Your task to perform on an android device: install app "Spotify: Music and Podcasts" Image 0: 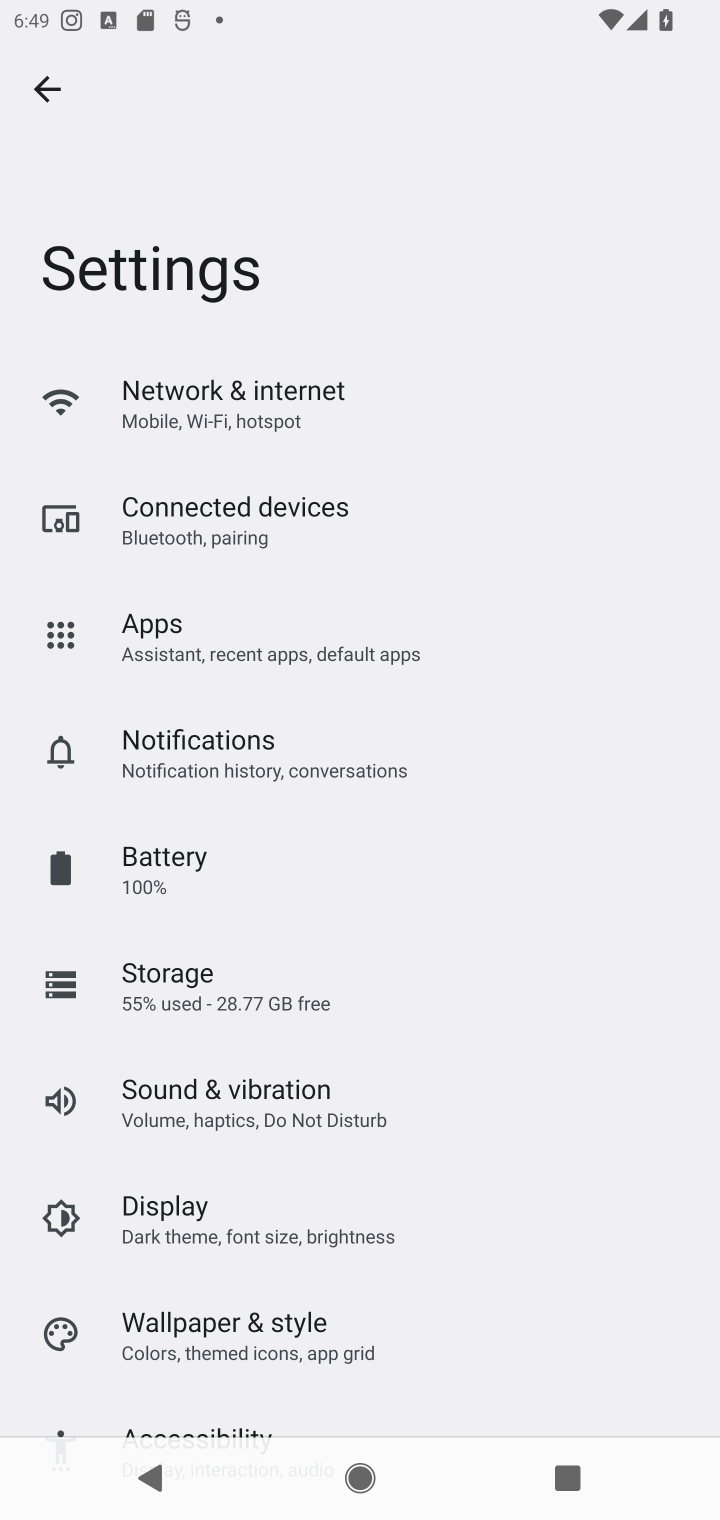
Step 0: press home button
Your task to perform on an android device: install app "Spotify: Music and Podcasts" Image 1: 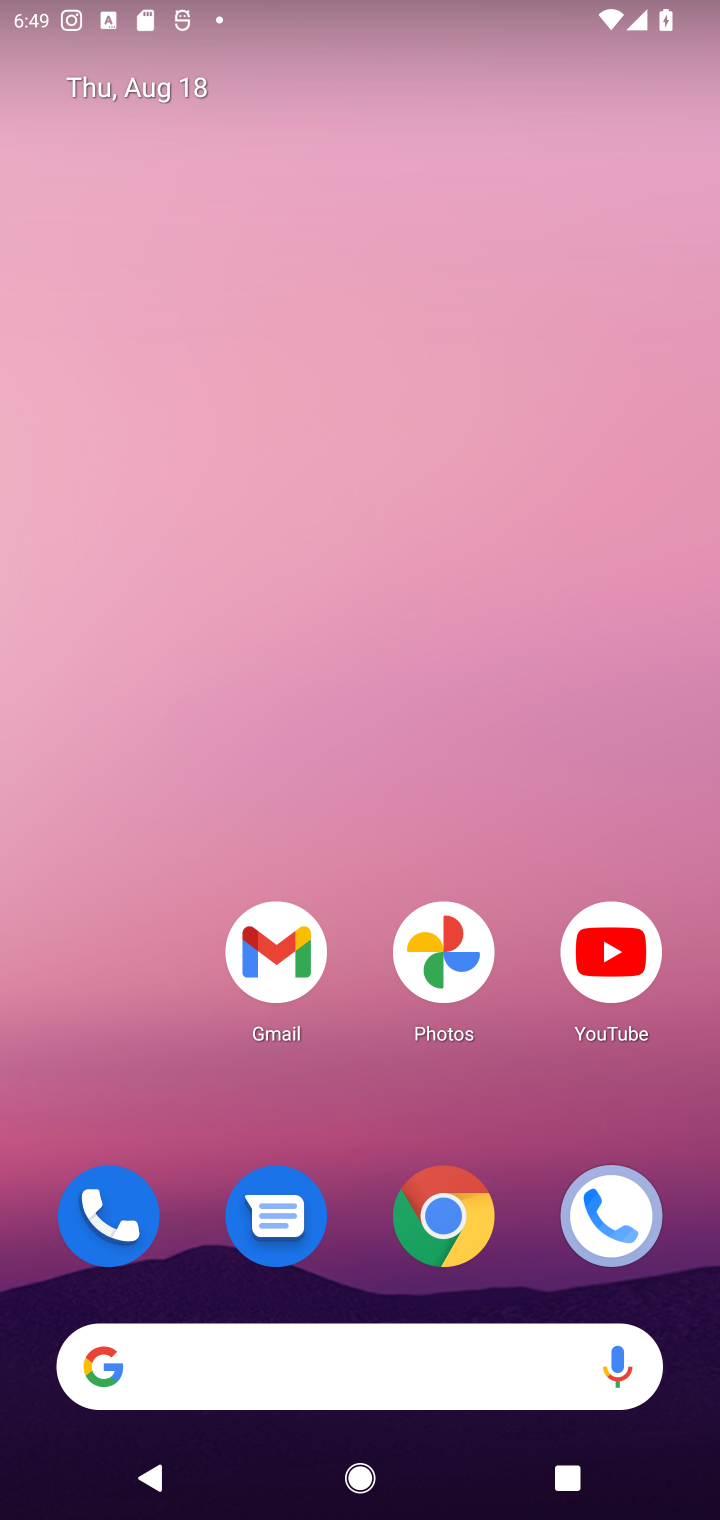
Step 1: drag from (452, 1080) to (446, 224)
Your task to perform on an android device: install app "Spotify: Music and Podcasts" Image 2: 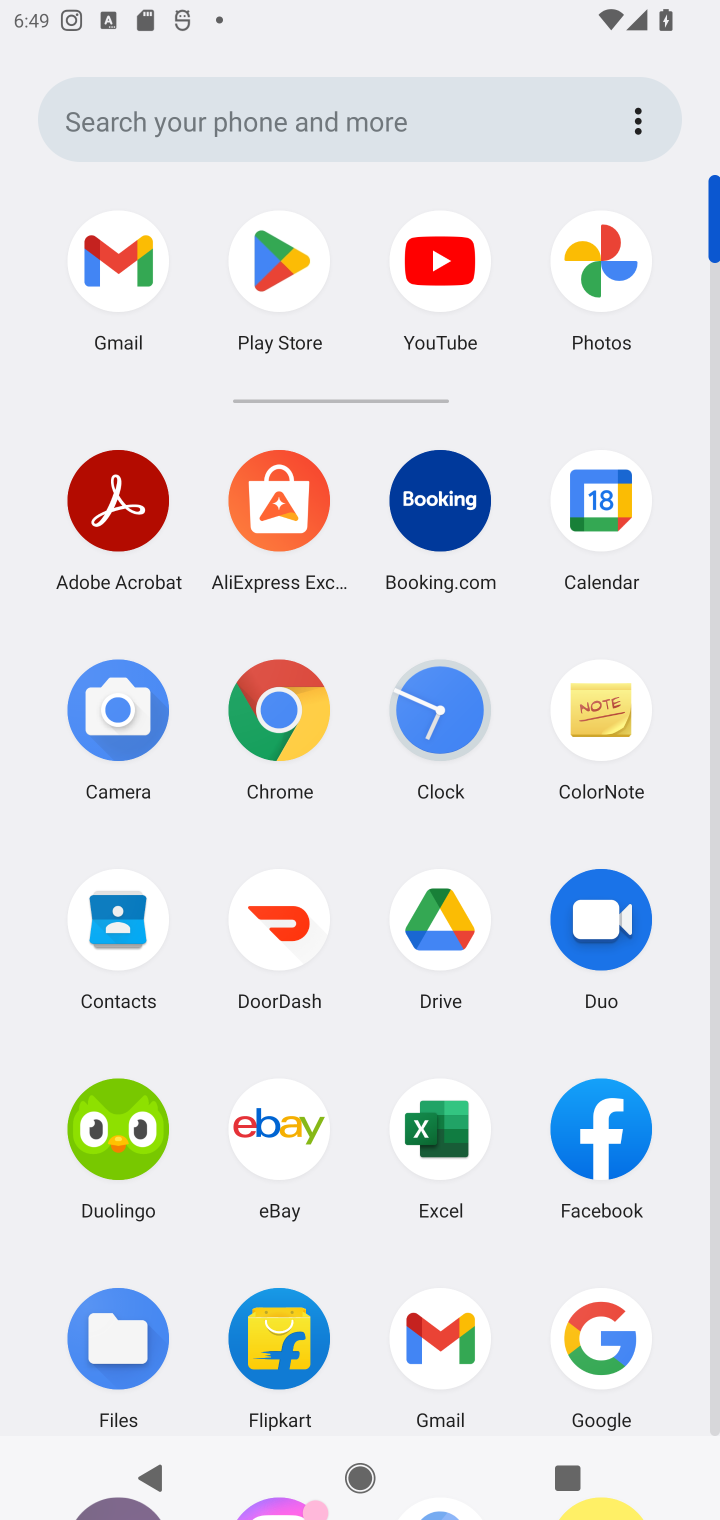
Step 2: click (264, 275)
Your task to perform on an android device: install app "Spotify: Music and Podcasts" Image 3: 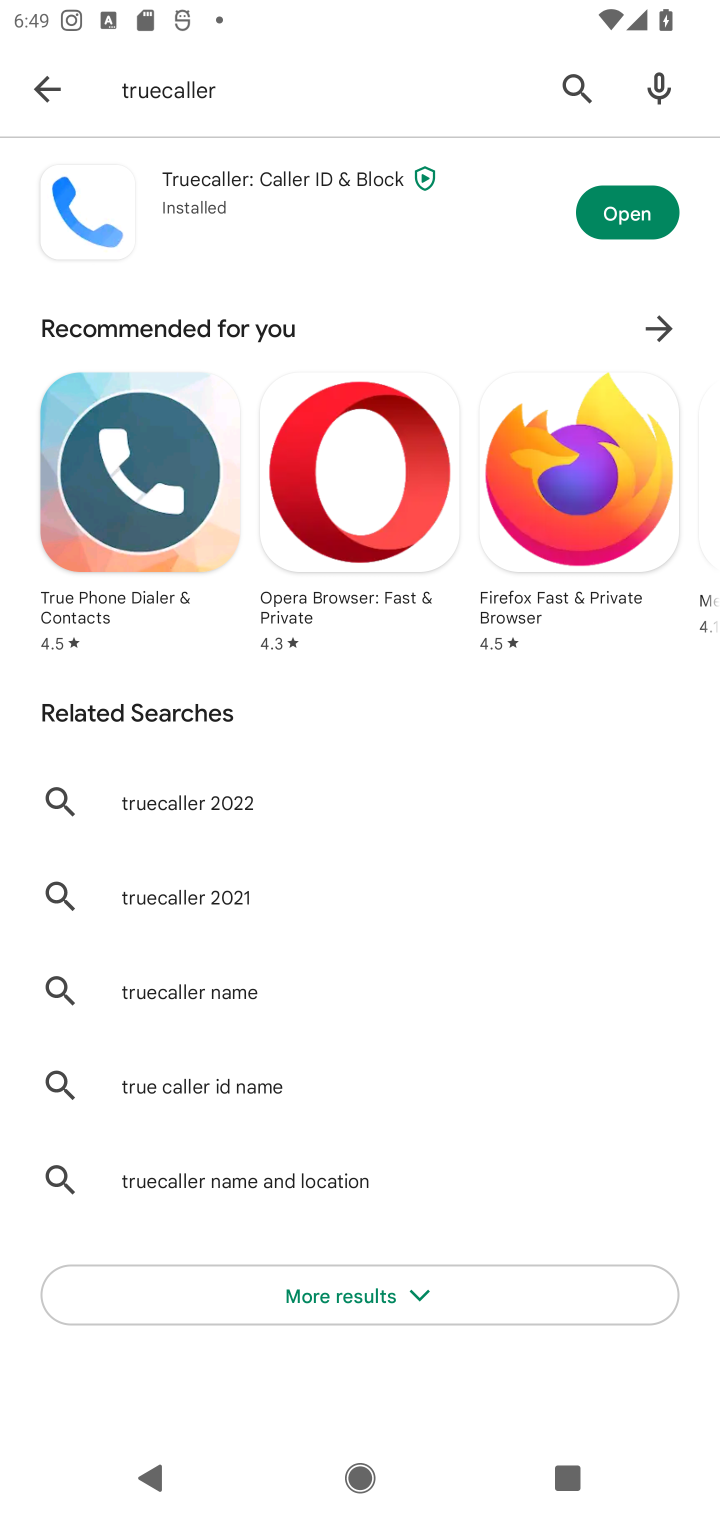
Step 3: click (559, 80)
Your task to perform on an android device: install app "Spotify: Music and Podcasts" Image 4: 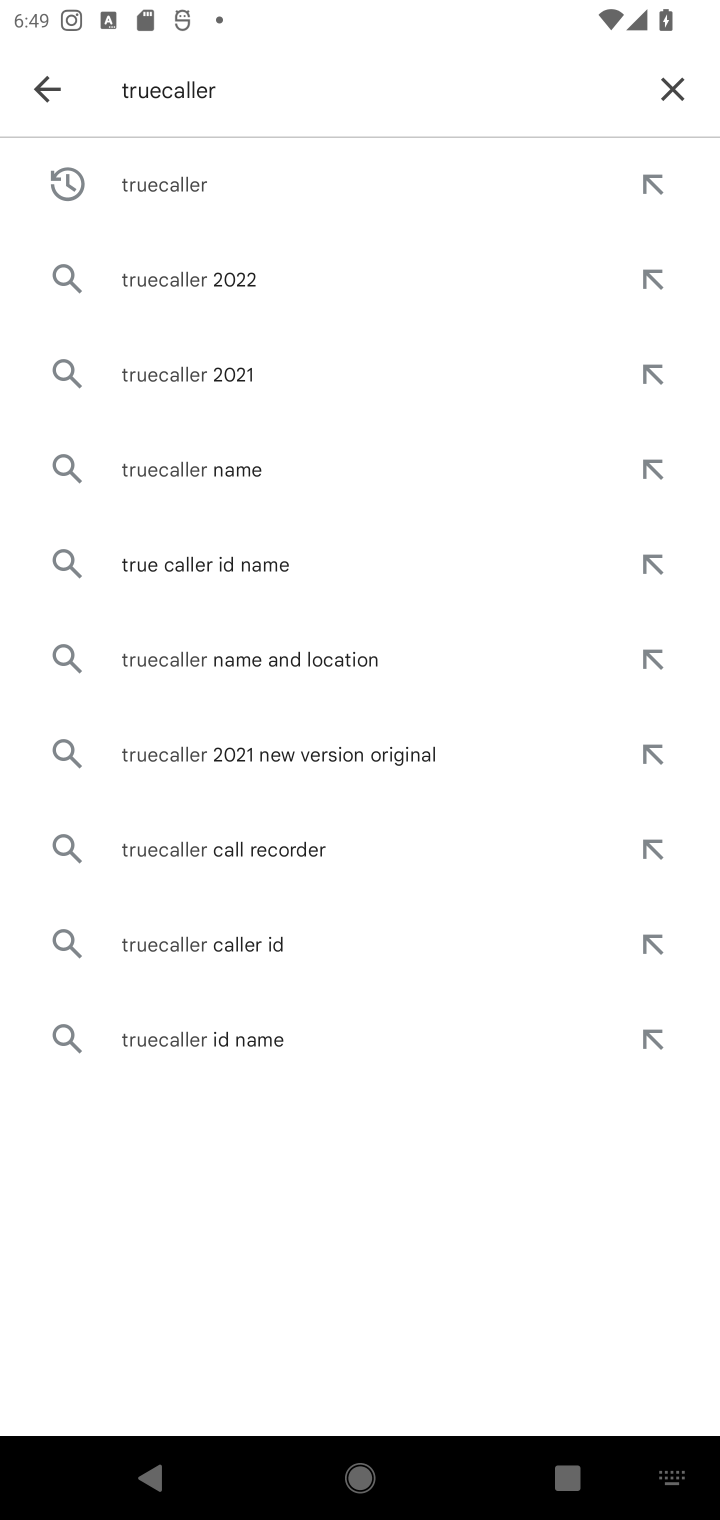
Step 4: click (668, 90)
Your task to perform on an android device: install app "Spotify: Music and Podcasts" Image 5: 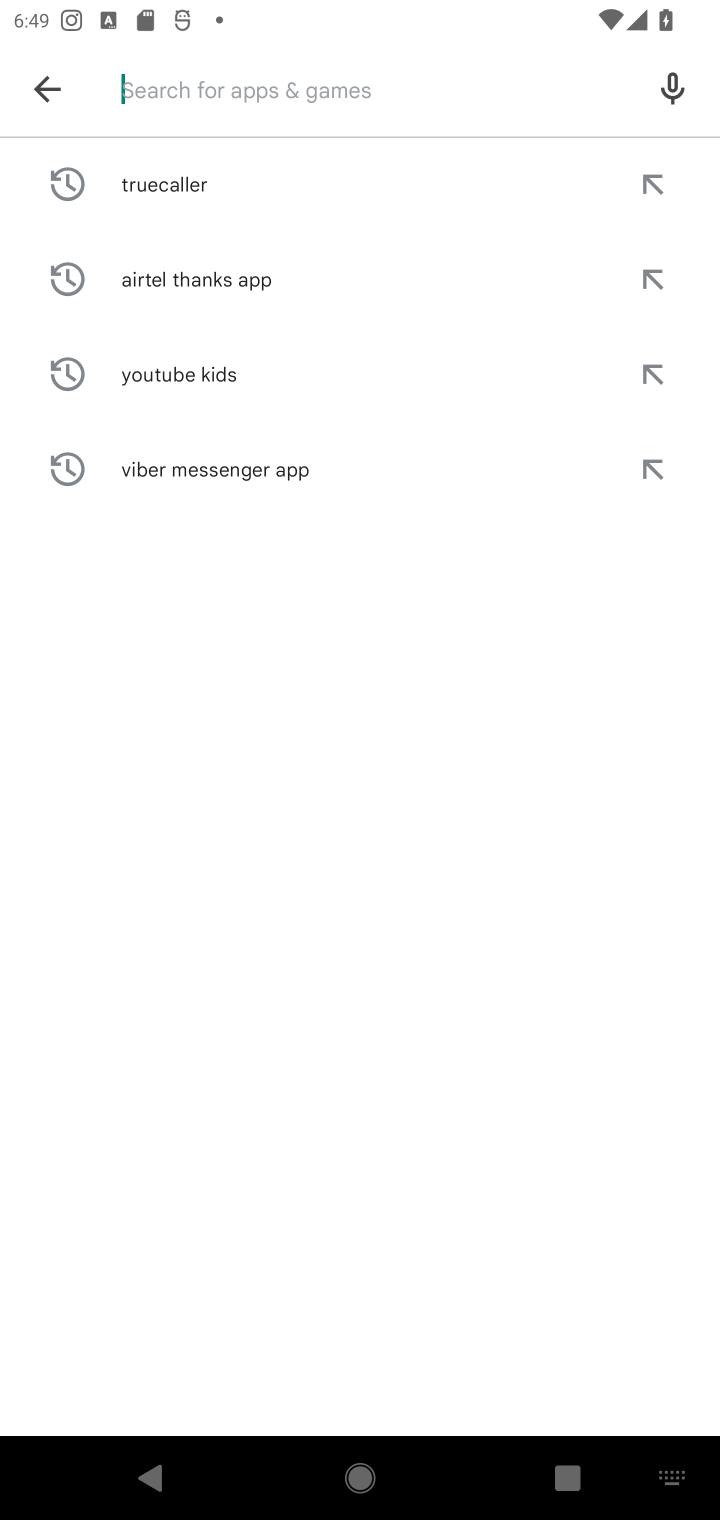
Step 5: type "Spotify: Music and Podcasts"
Your task to perform on an android device: install app "Spotify: Music and Podcasts" Image 6: 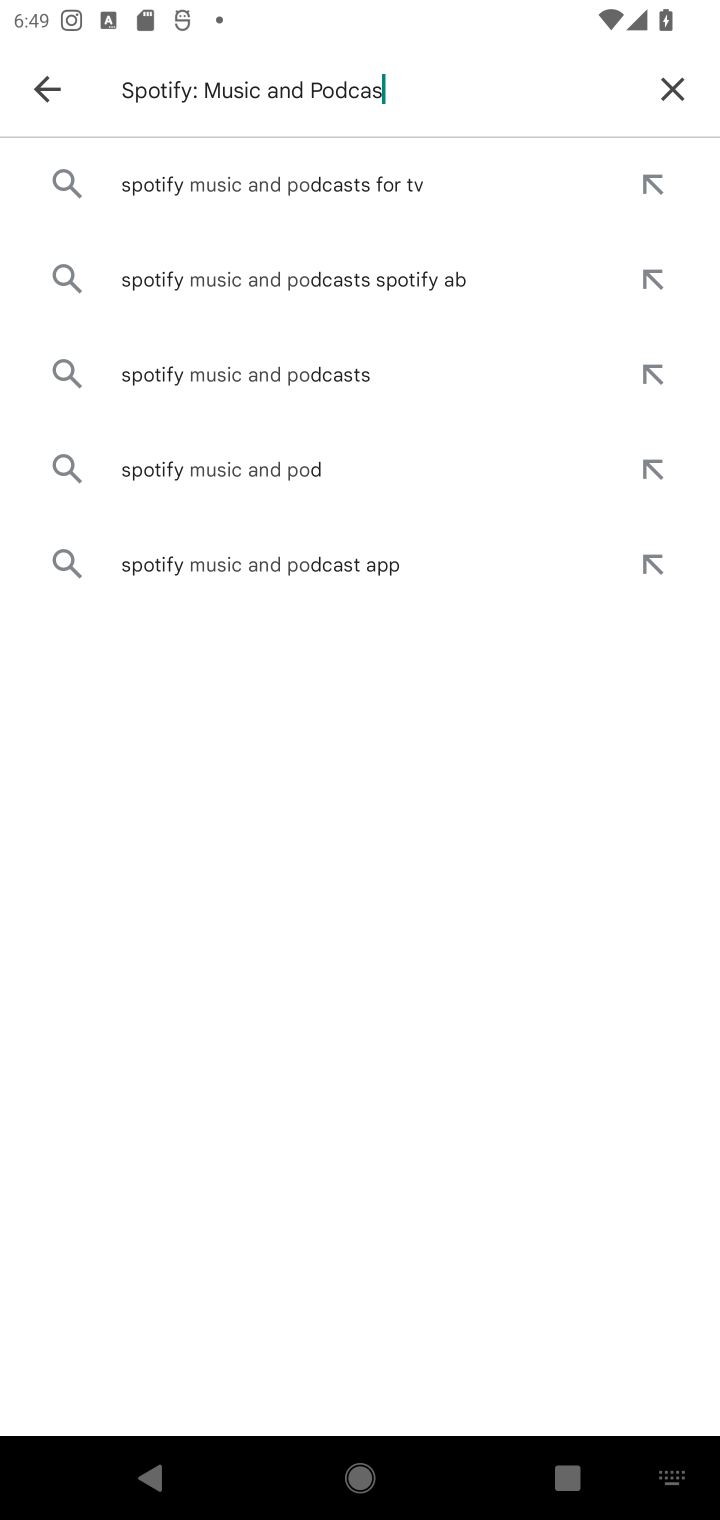
Step 6: type ""
Your task to perform on an android device: install app "Spotify: Music and Podcasts" Image 7: 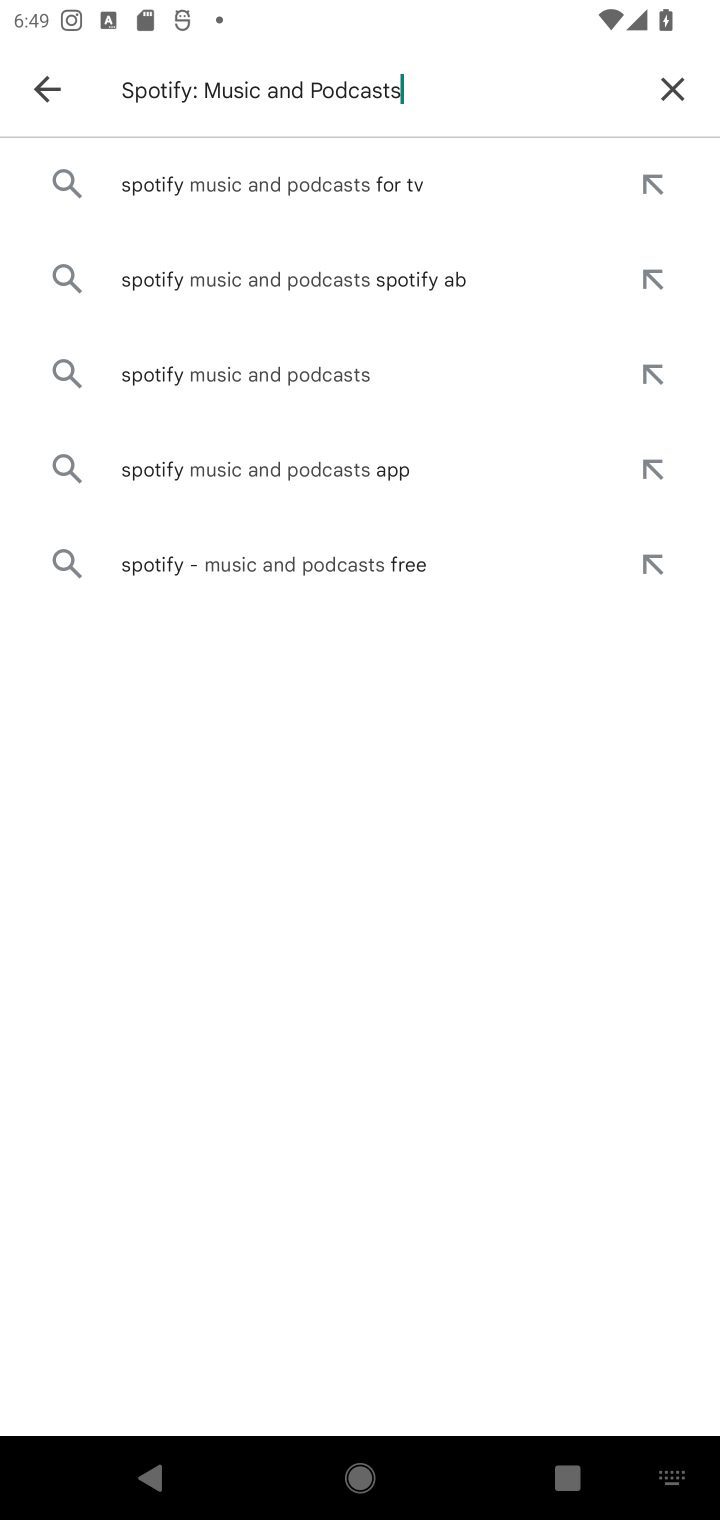
Step 7: click (306, 189)
Your task to perform on an android device: install app "Spotify: Music and Podcasts" Image 8: 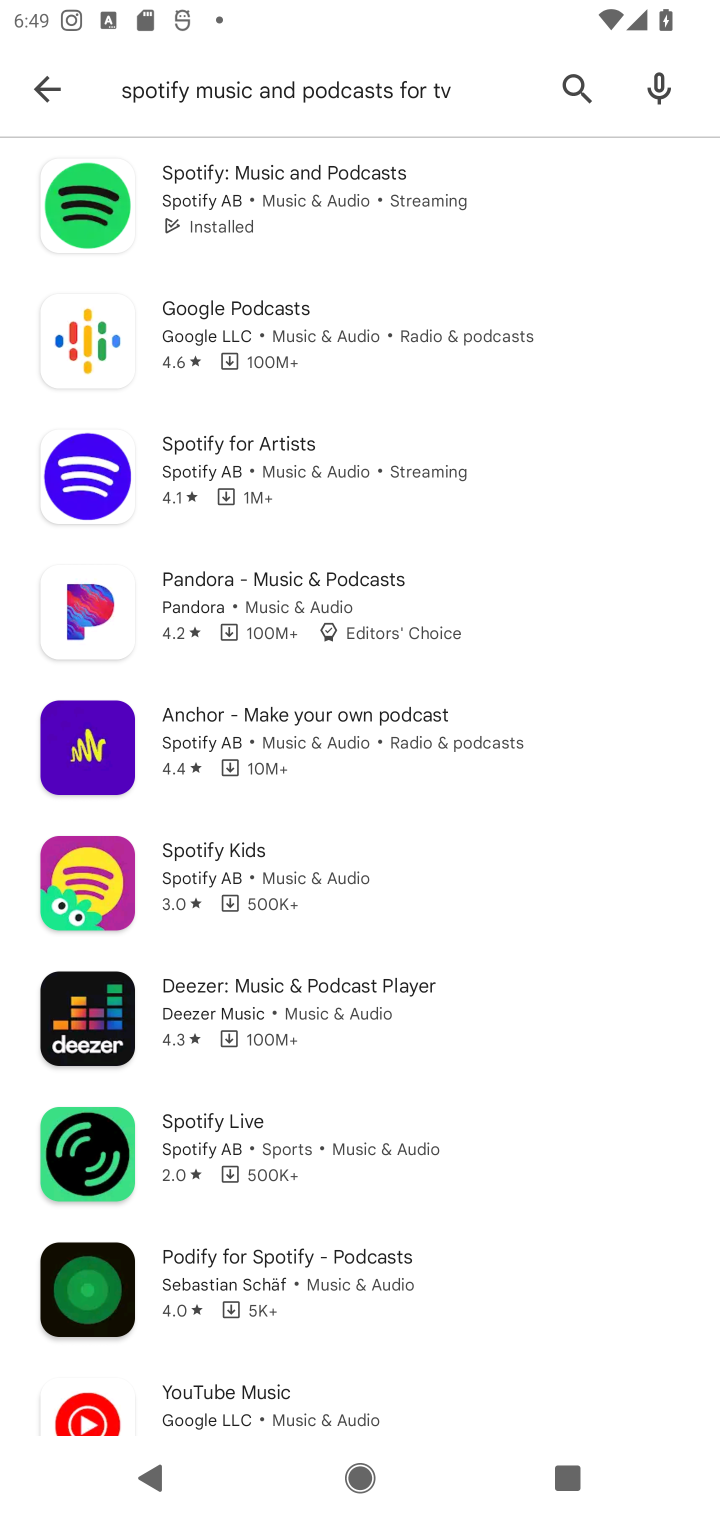
Step 8: click (287, 209)
Your task to perform on an android device: install app "Spotify: Music and Podcasts" Image 9: 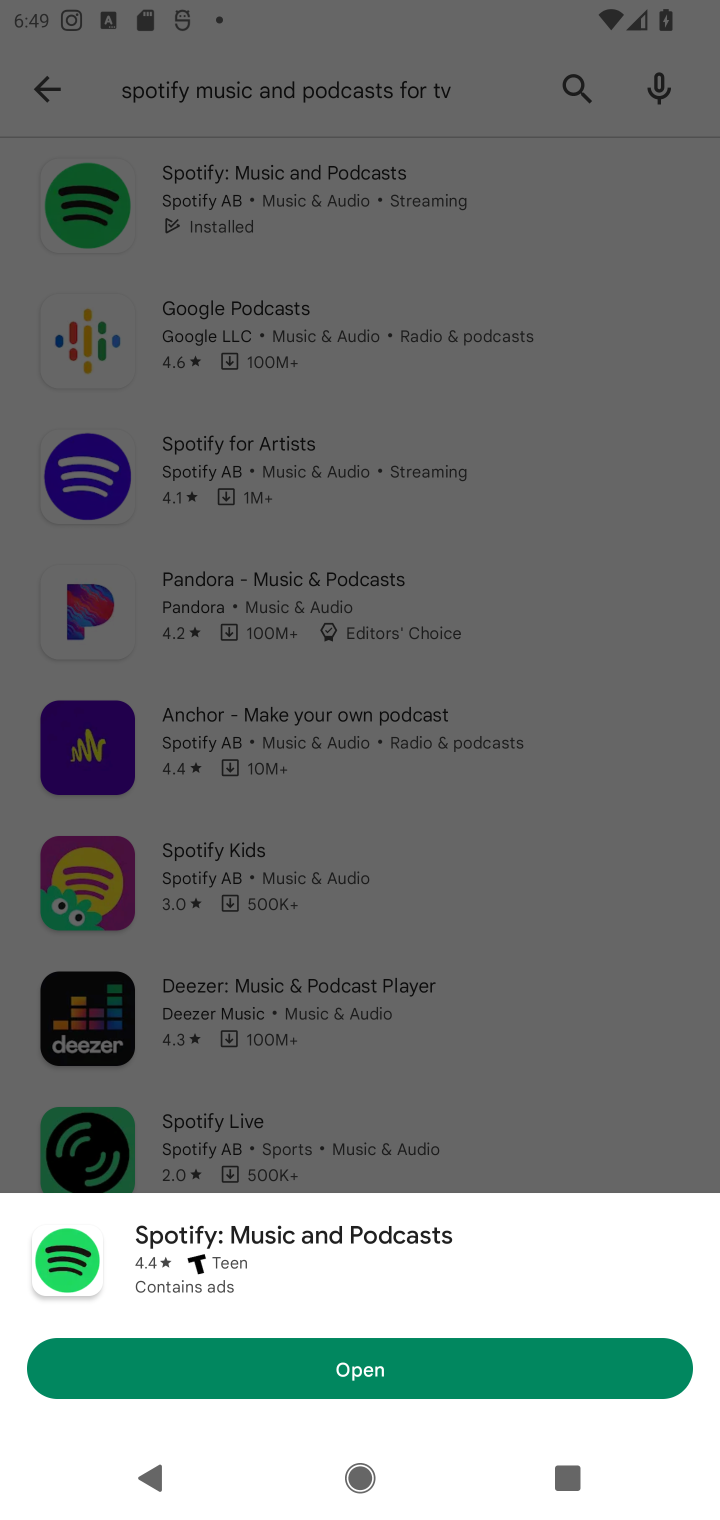
Step 9: task complete